Your task to perform on an android device: Add "razer naga" to the cart on amazon Image 0: 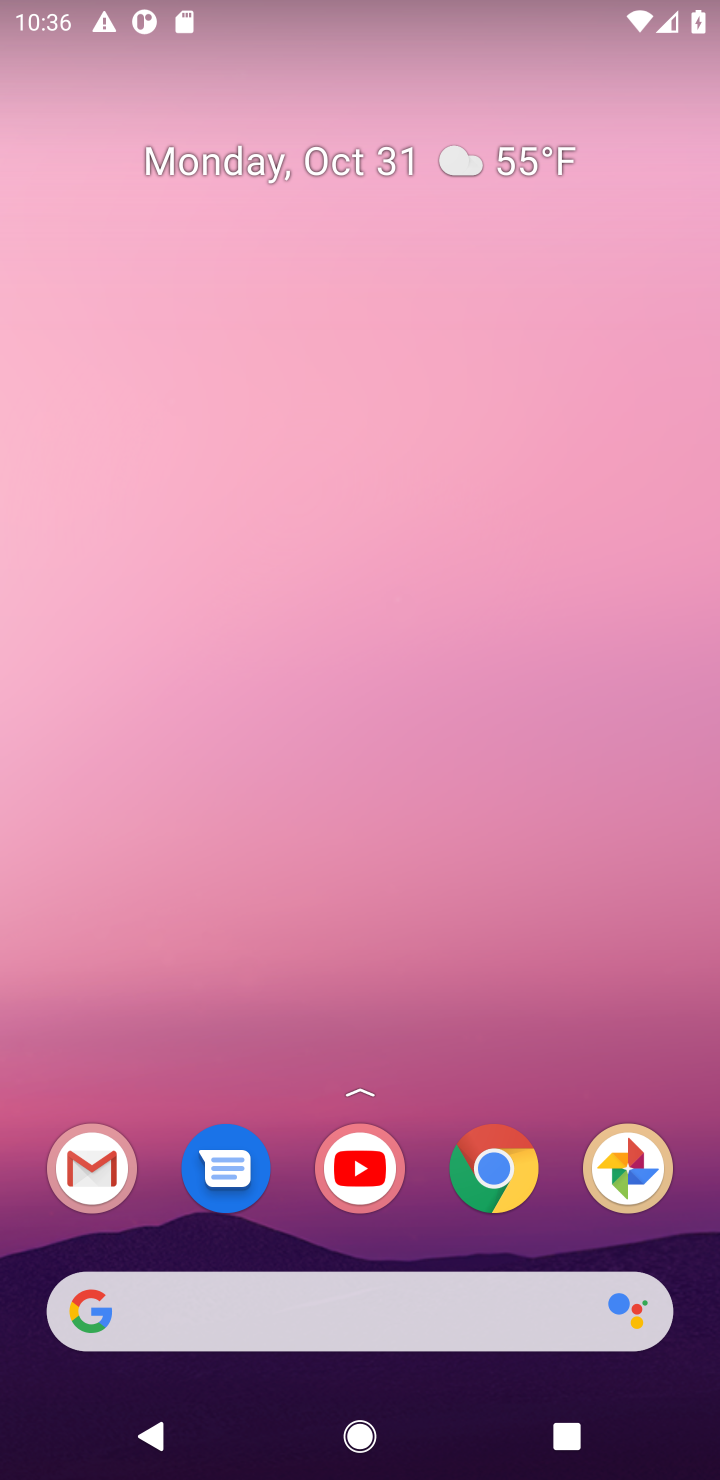
Step 0: click (491, 1175)
Your task to perform on an android device: Add "razer naga" to the cart on amazon Image 1: 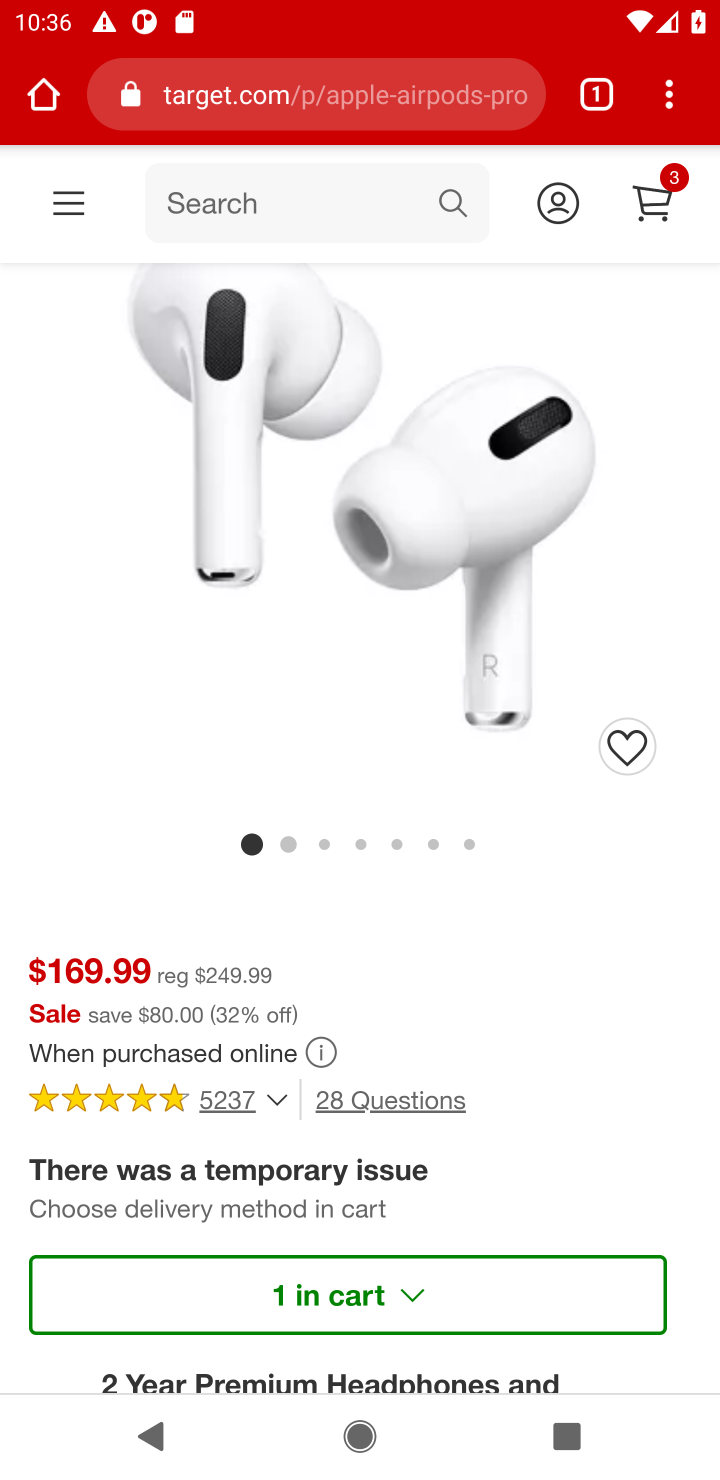
Step 1: click (315, 94)
Your task to perform on an android device: Add "razer naga" to the cart on amazon Image 2: 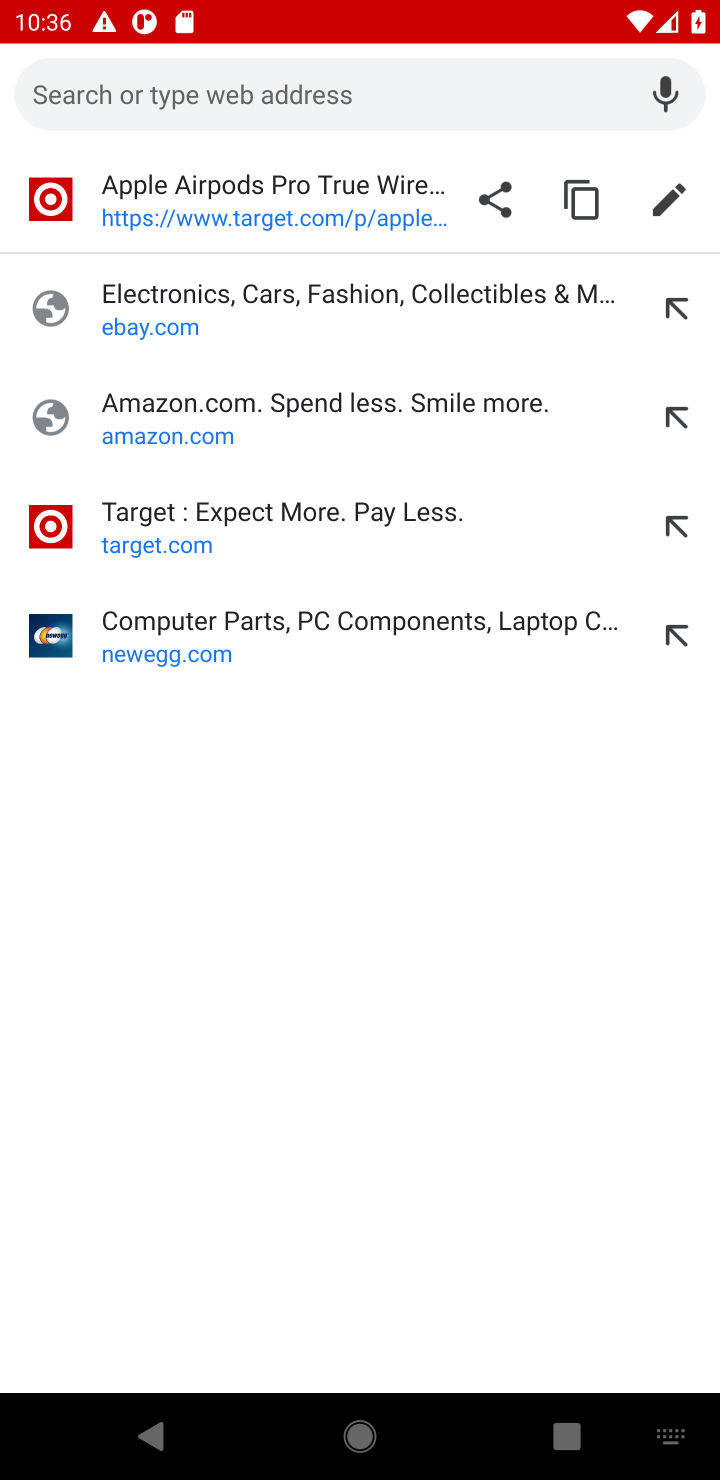
Step 2: type "amazon"
Your task to perform on an android device: Add "razer naga" to the cart on amazon Image 3: 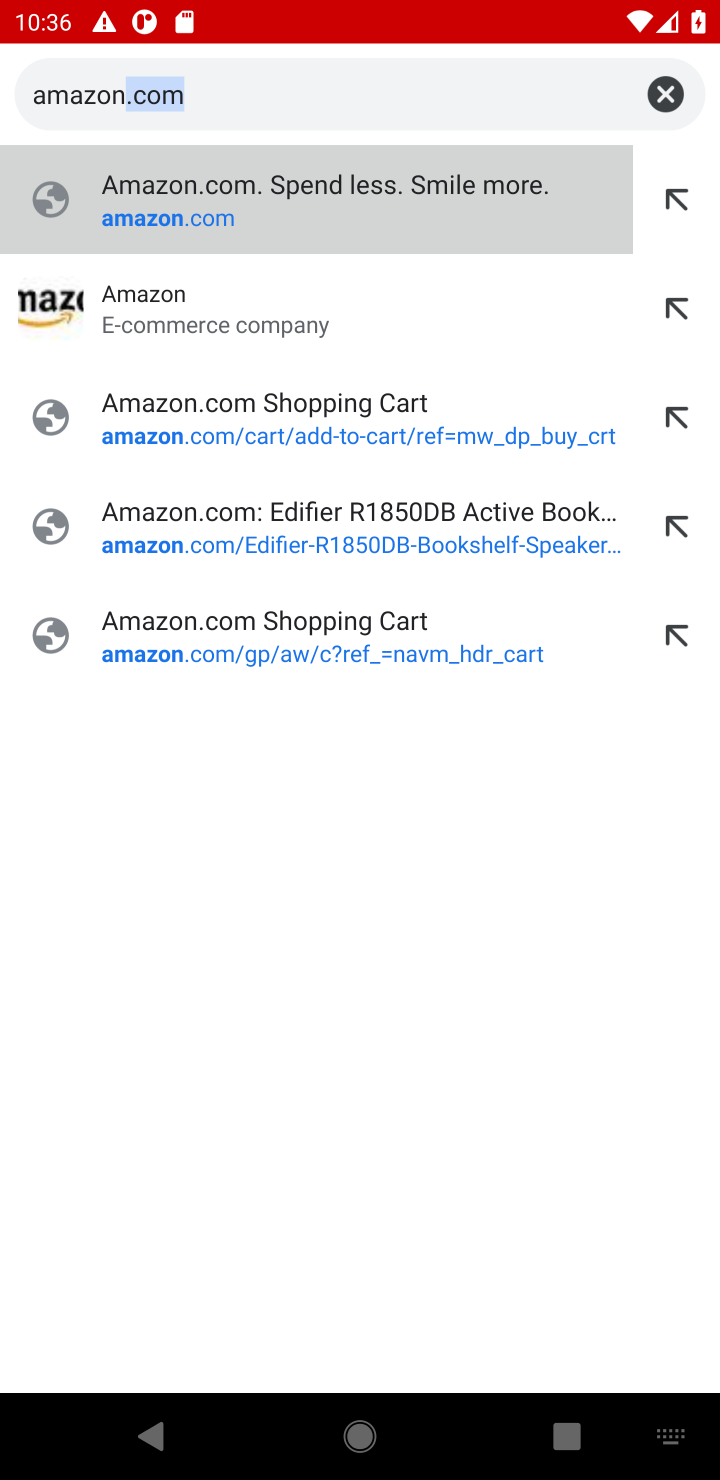
Step 3: click (296, 206)
Your task to perform on an android device: Add "razer naga" to the cart on amazon Image 4: 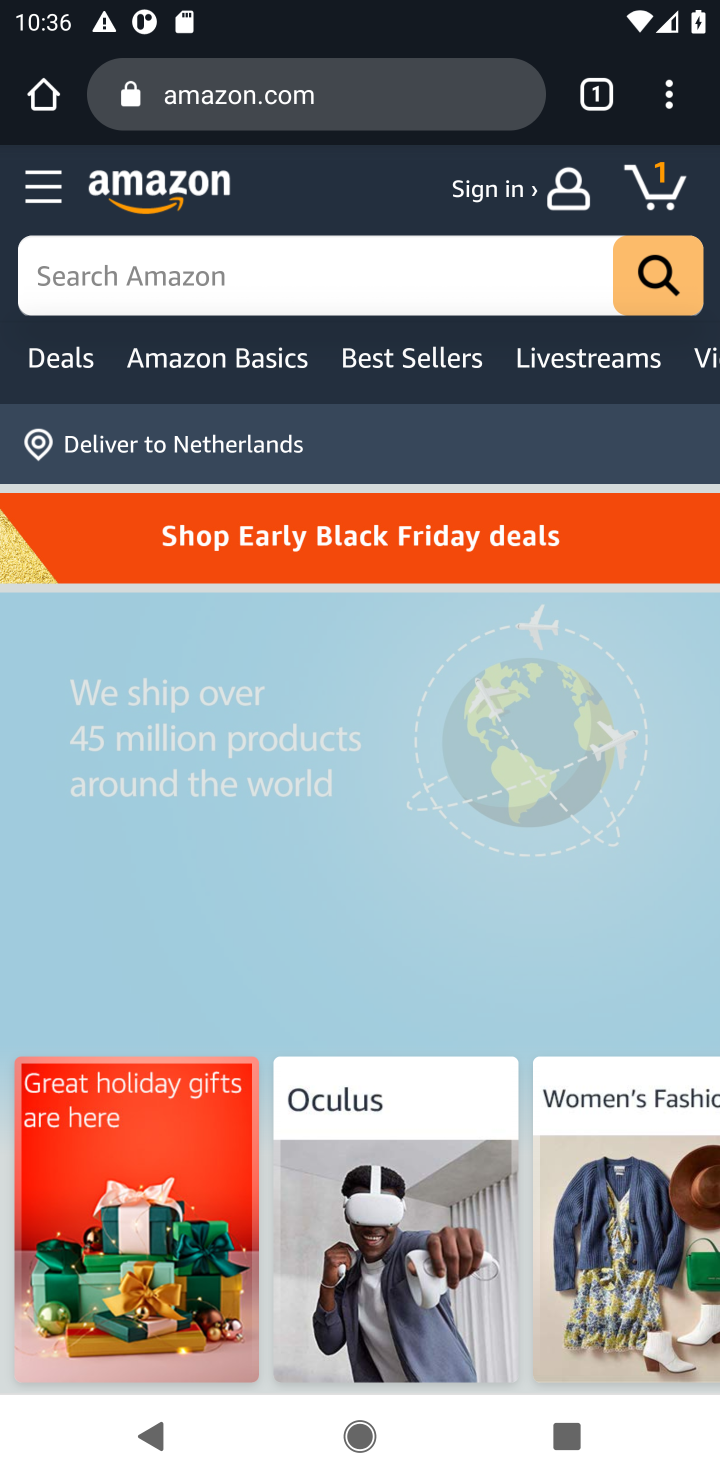
Step 4: click (372, 271)
Your task to perform on an android device: Add "razer naga" to the cart on amazon Image 5: 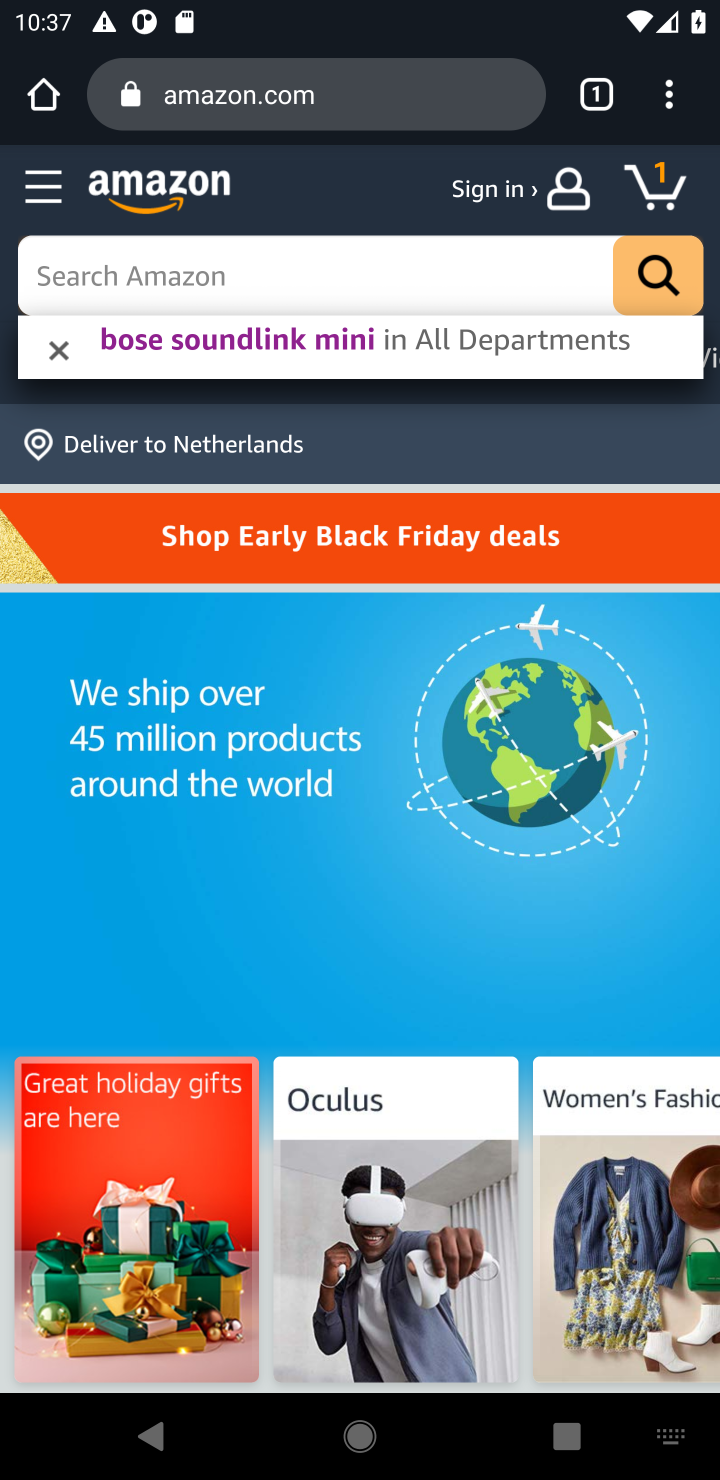
Step 5: type "razer naga"
Your task to perform on an android device: Add "razer naga" to the cart on amazon Image 6: 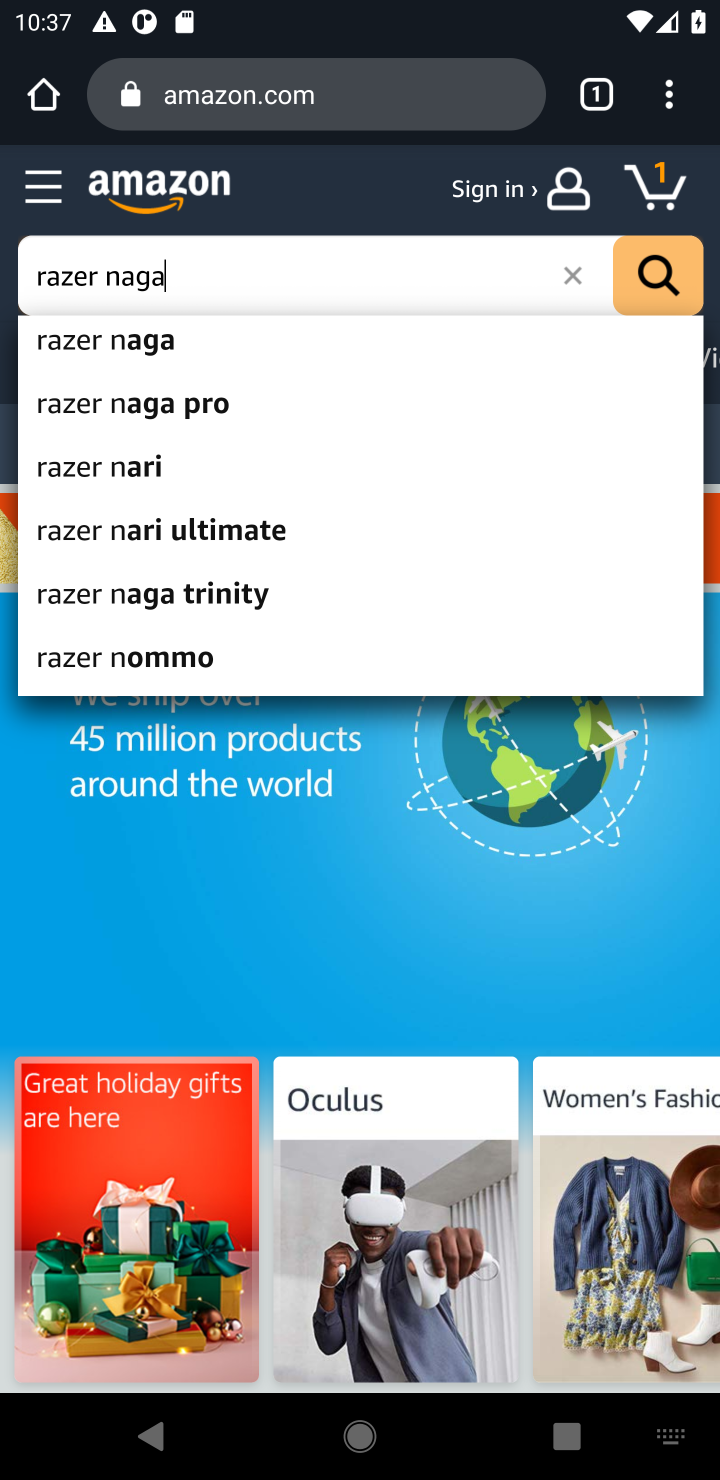
Step 6: press enter
Your task to perform on an android device: Add "razer naga" to the cart on amazon Image 7: 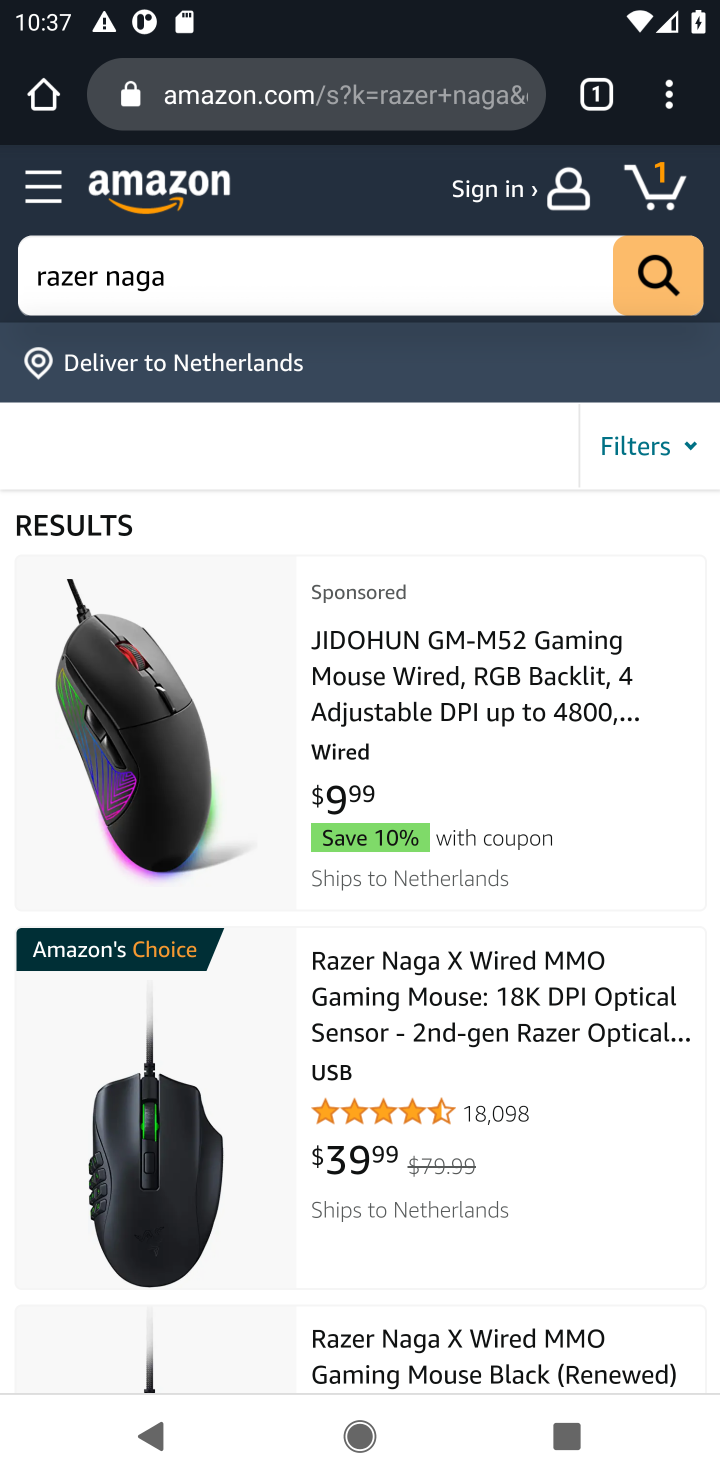
Step 7: click (251, 1047)
Your task to perform on an android device: Add "razer naga" to the cart on amazon Image 8: 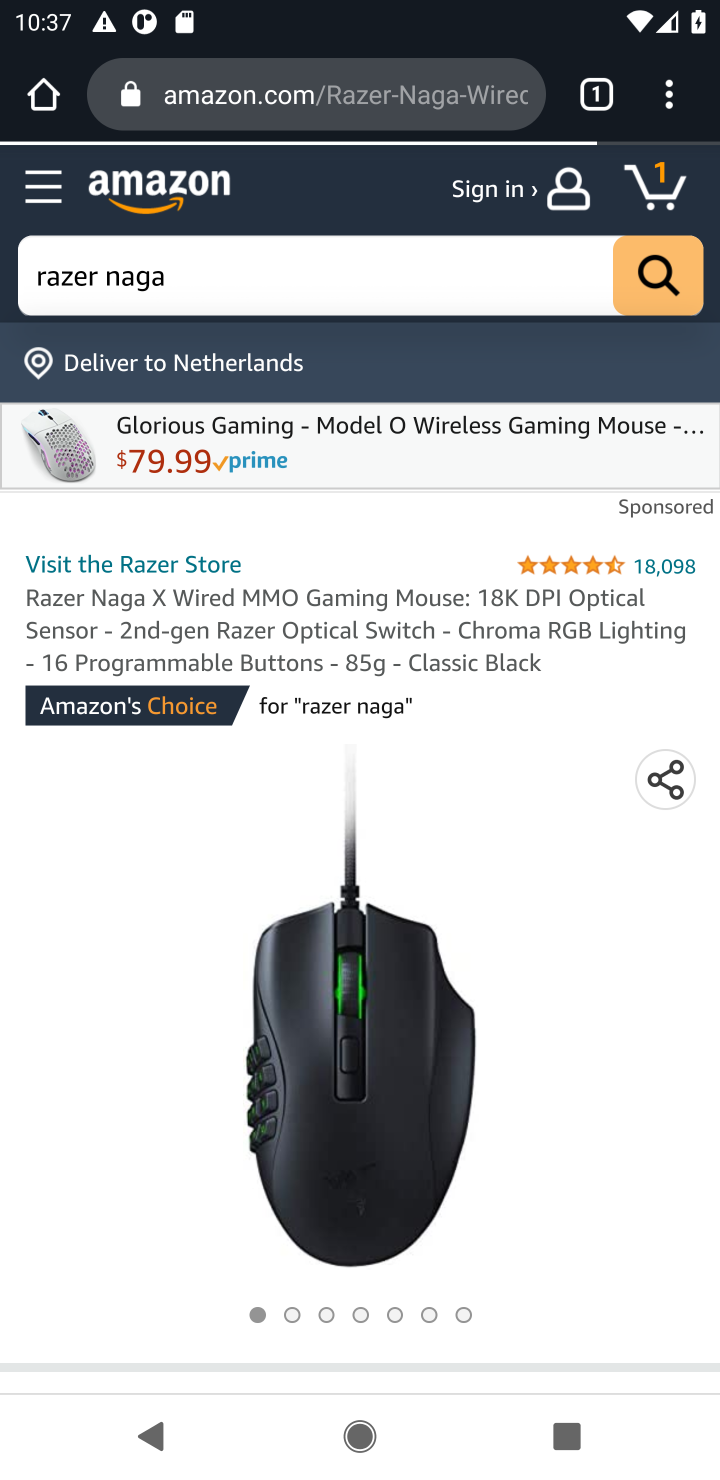
Step 8: drag from (581, 1127) to (520, 906)
Your task to perform on an android device: Add "razer naga" to the cart on amazon Image 9: 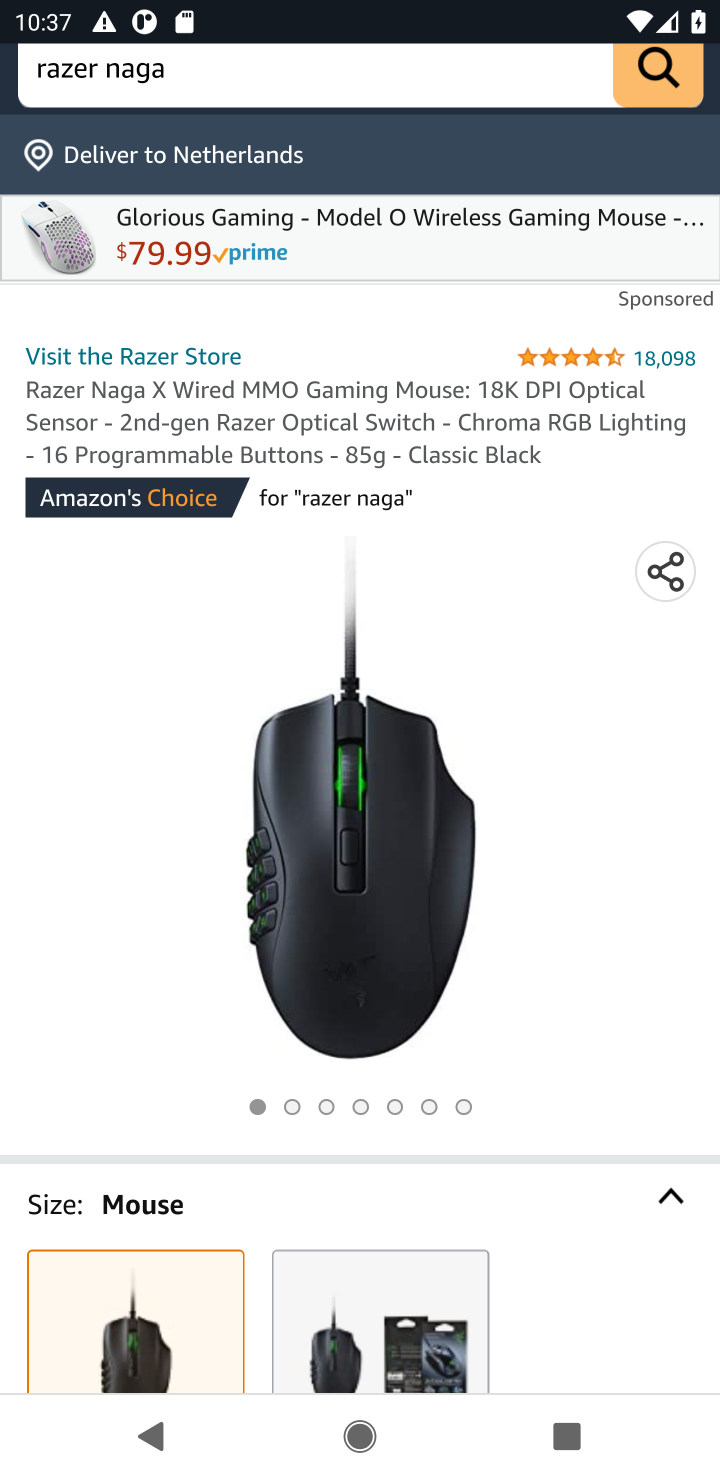
Step 9: drag from (589, 1096) to (586, 830)
Your task to perform on an android device: Add "razer naga" to the cart on amazon Image 10: 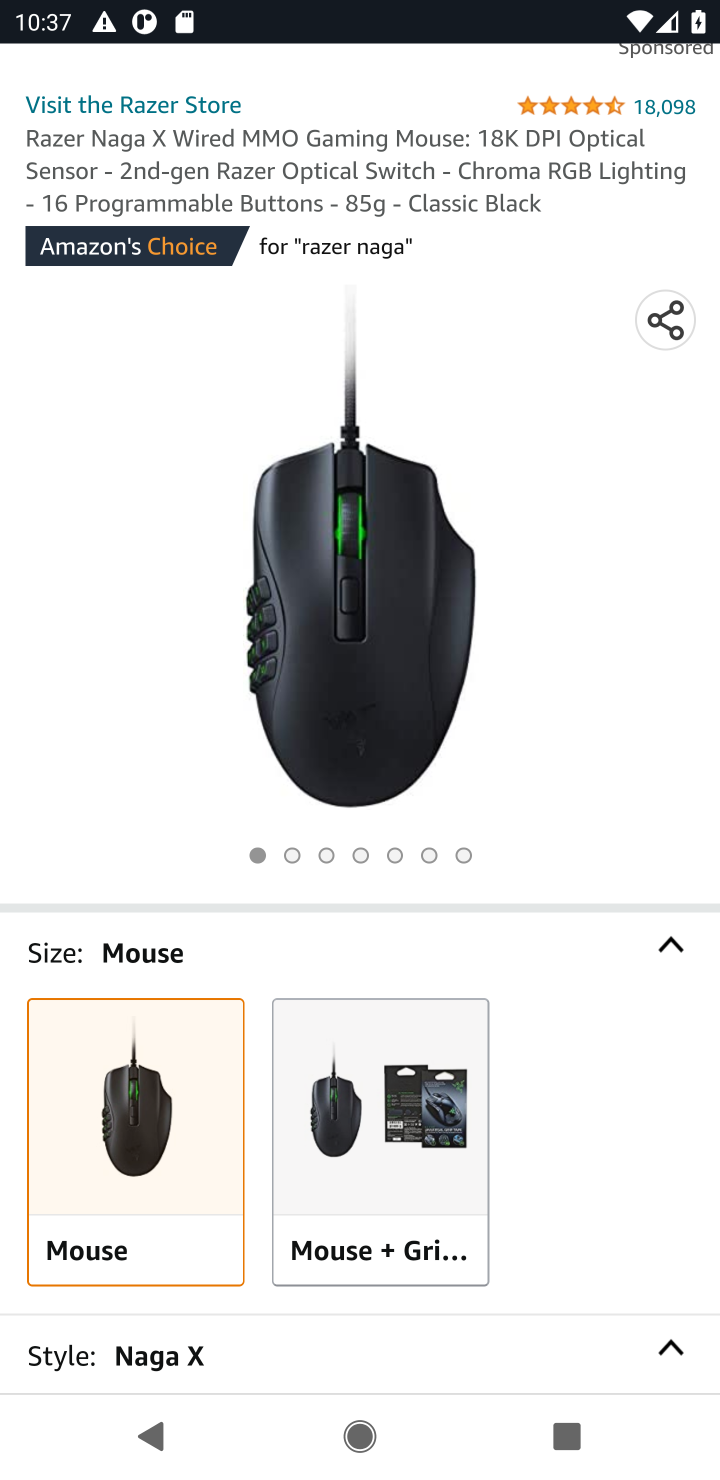
Step 10: drag from (600, 1024) to (525, 576)
Your task to perform on an android device: Add "razer naga" to the cart on amazon Image 11: 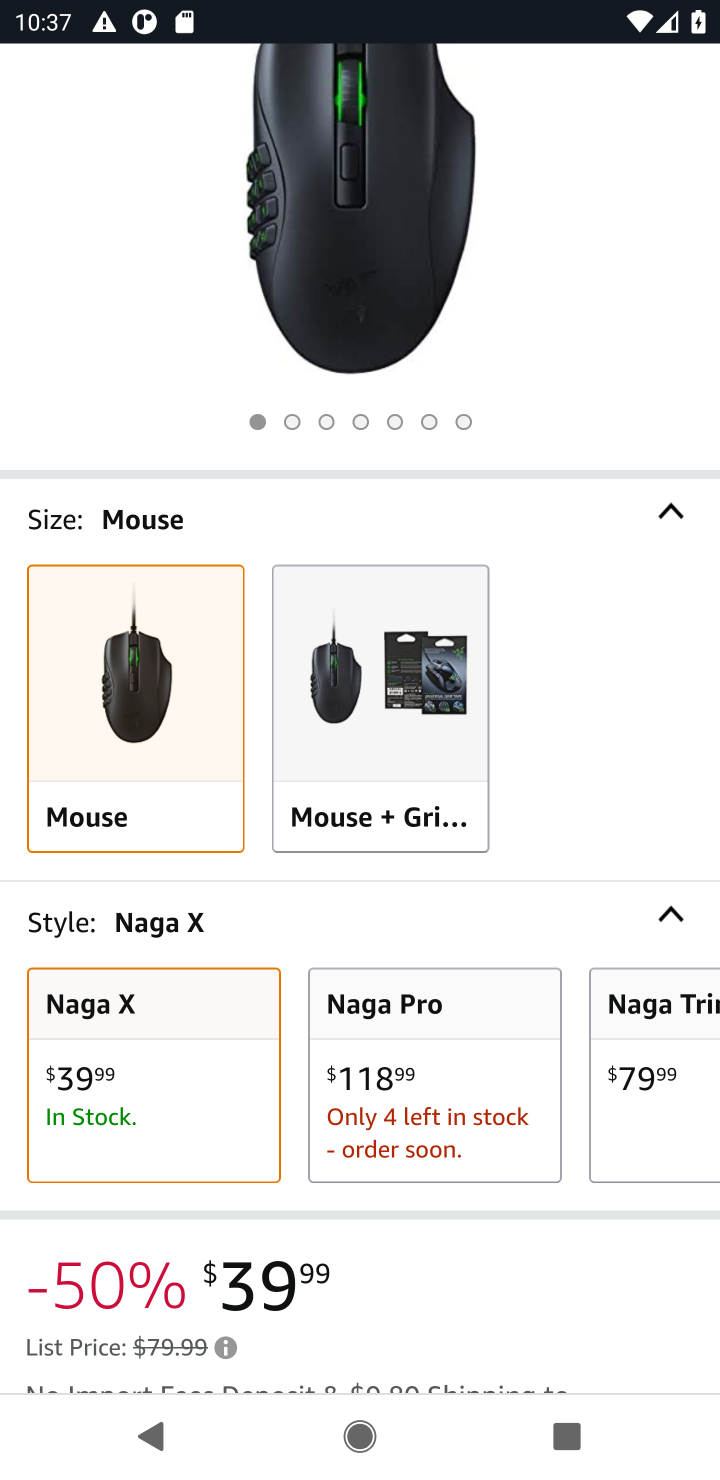
Step 11: drag from (569, 1238) to (456, 473)
Your task to perform on an android device: Add "razer naga" to the cart on amazon Image 12: 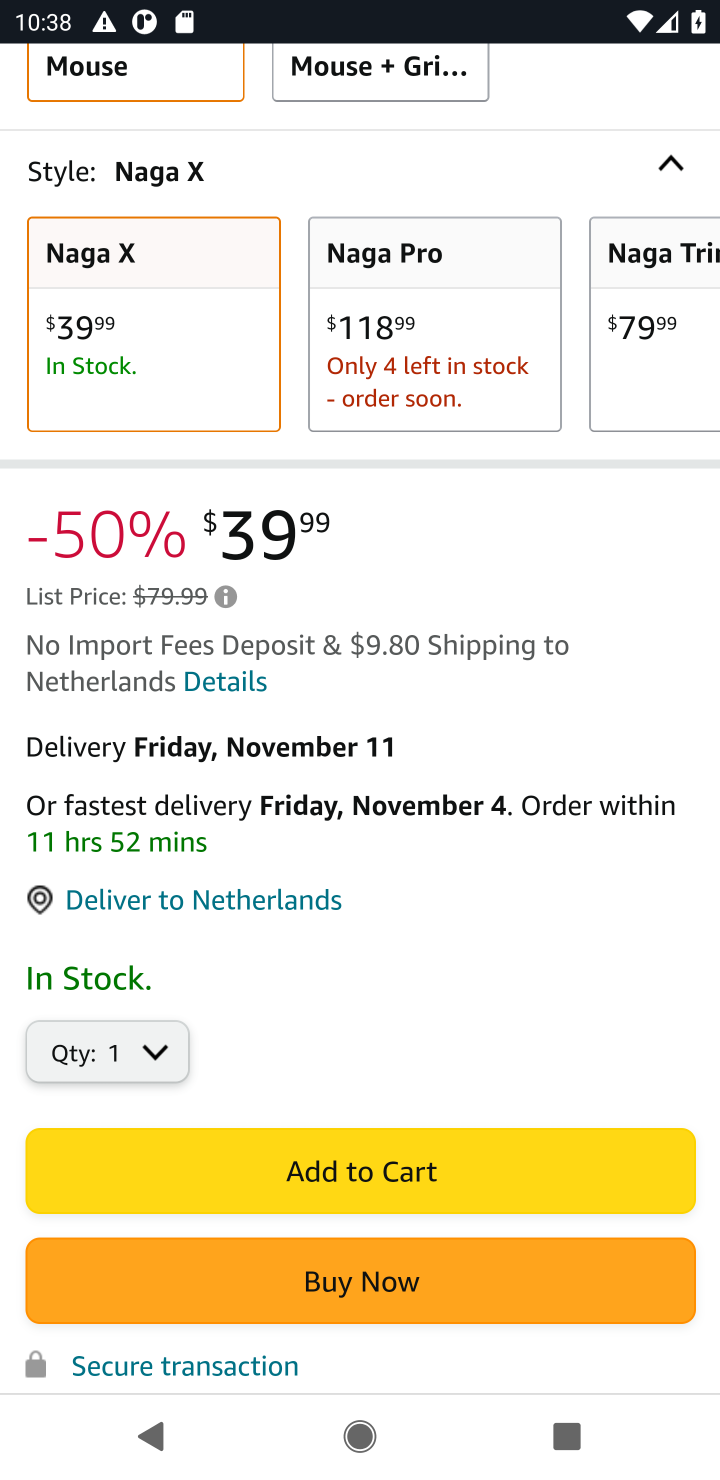
Step 12: click (405, 1172)
Your task to perform on an android device: Add "razer naga" to the cart on amazon Image 13: 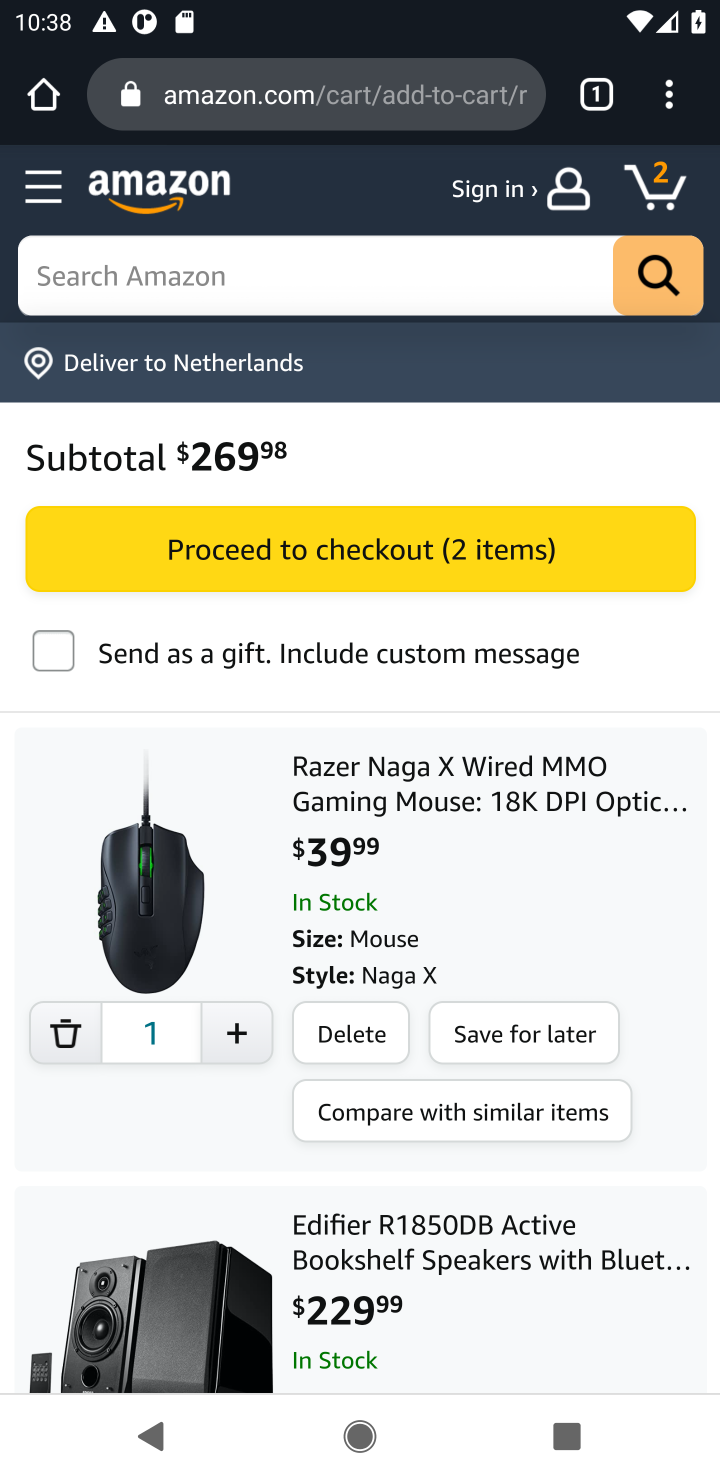
Step 13: task complete